Your task to perform on an android device: manage bookmarks in the chrome app Image 0: 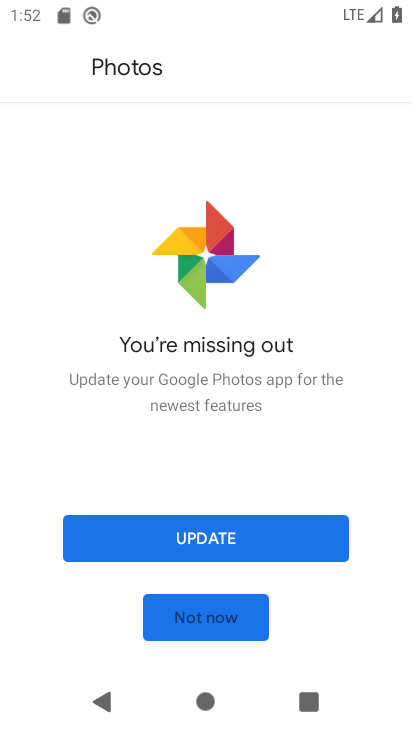
Step 0: press home button
Your task to perform on an android device: manage bookmarks in the chrome app Image 1: 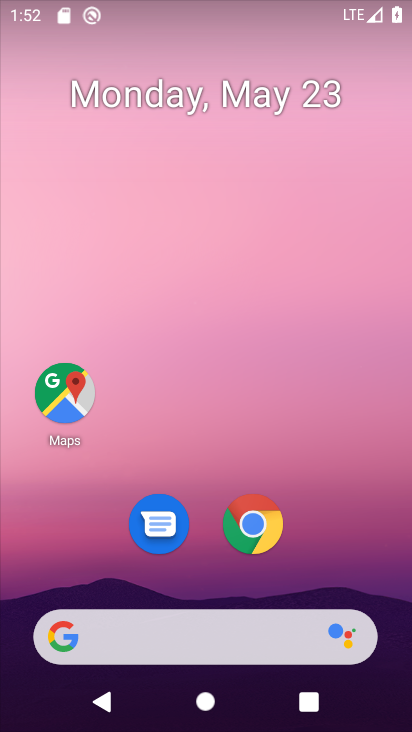
Step 1: click (248, 513)
Your task to perform on an android device: manage bookmarks in the chrome app Image 2: 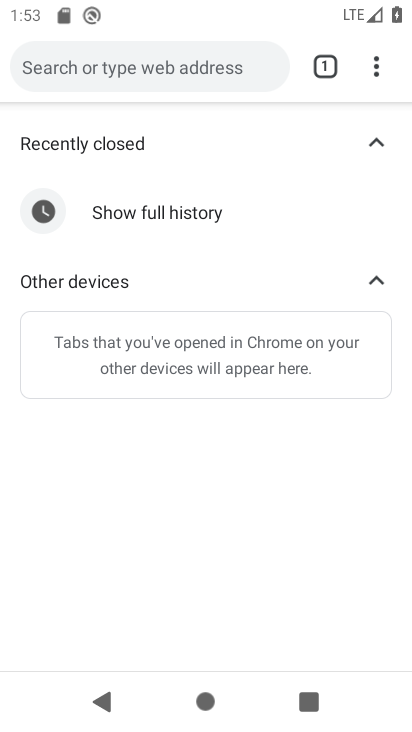
Step 2: click (373, 65)
Your task to perform on an android device: manage bookmarks in the chrome app Image 3: 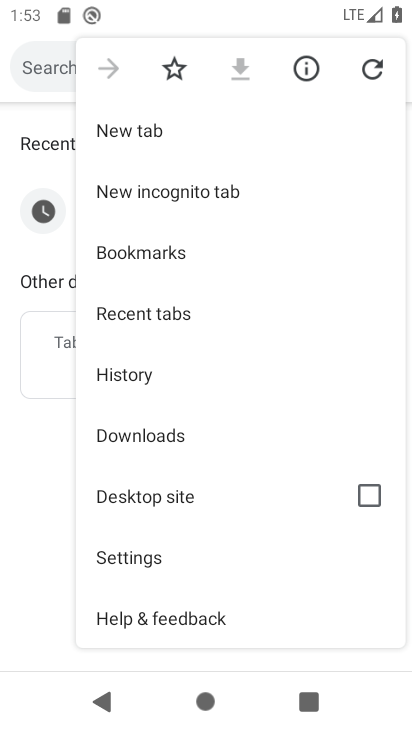
Step 3: click (207, 244)
Your task to perform on an android device: manage bookmarks in the chrome app Image 4: 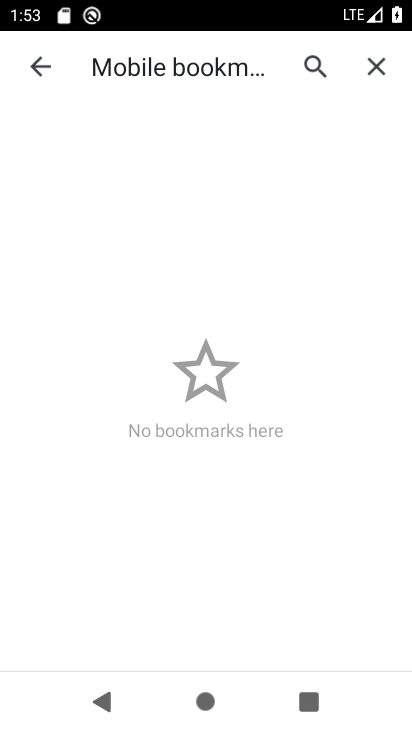
Step 4: task complete